Your task to perform on an android device: What's the weather today? Image 0: 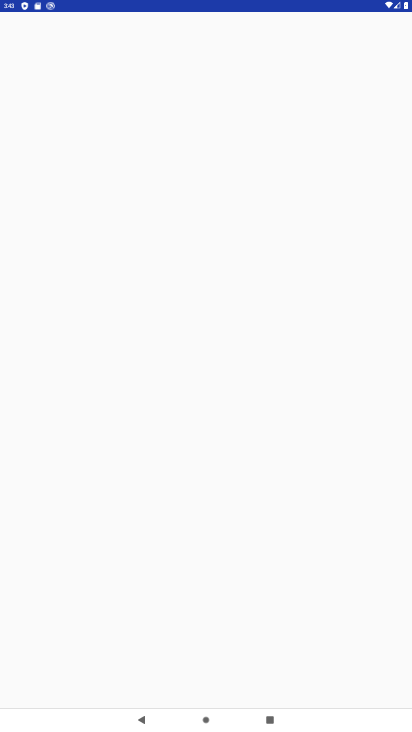
Step 0: click (142, 651)
Your task to perform on an android device: What's the weather today? Image 1: 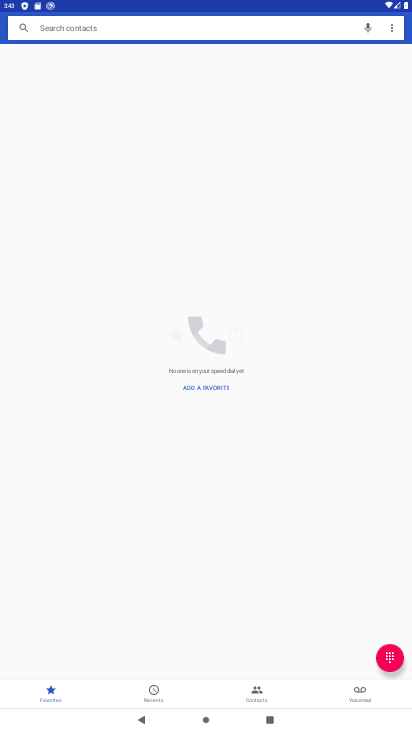
Step 1: press home button
Your task to perform on an android device: What's the weather today? Image 2: 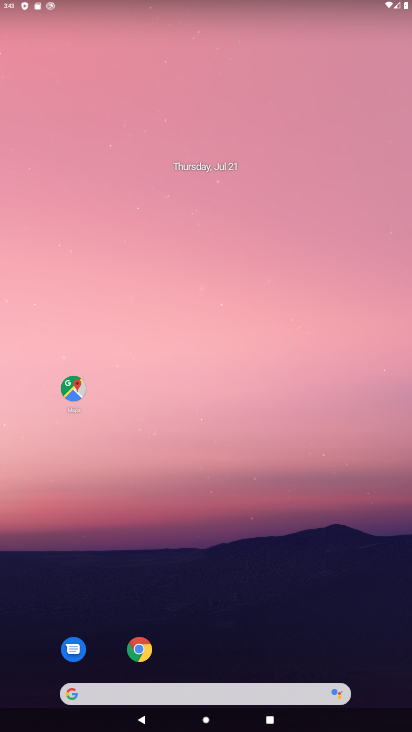
Step 2: click (136, 647)
Your task to perform on an android device: What's the weather today? Image 3: 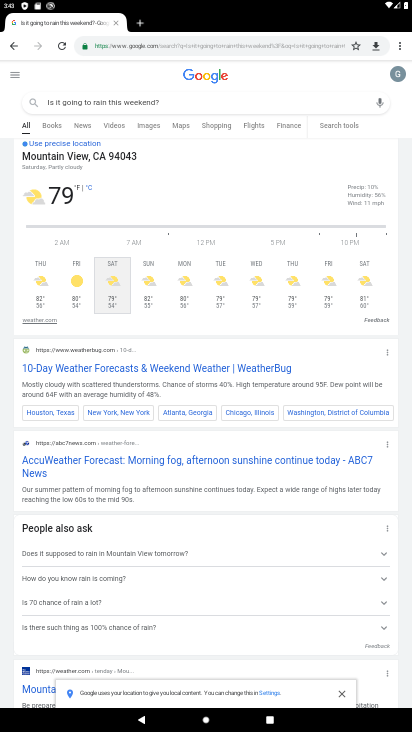
Step 3: click (204, 109)
Your task to perform on an android device: What's the weather today? Image 4: 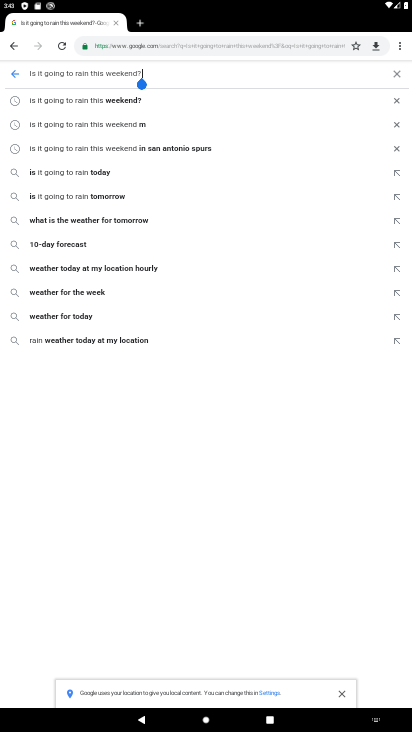
Step 4: click (399, 73)
Your task to perform on an android device: What's the weather today? Image 5: 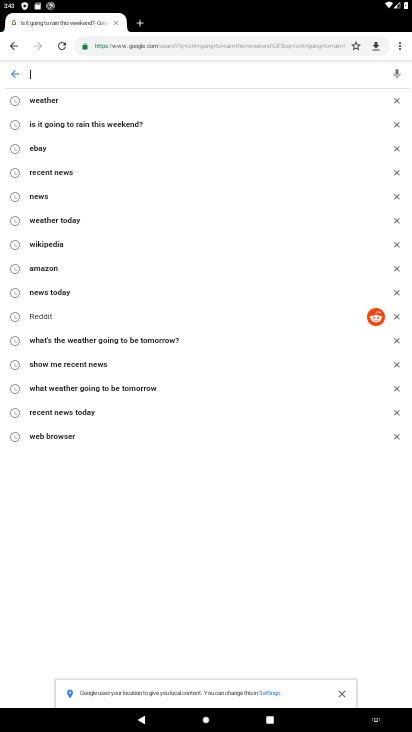
Step 5: type "What's the weather today?"
Your task to perform on an android device: What's the weather today? Image 6: 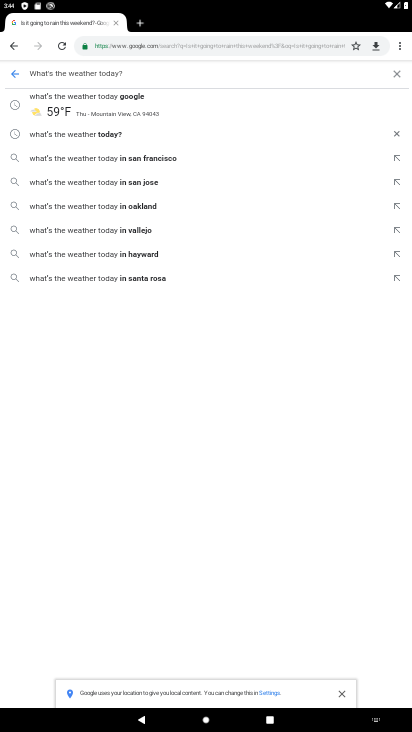
Step 6: click (56, 136)
Your task to perform on an android device: What's the weather today? Image 7: 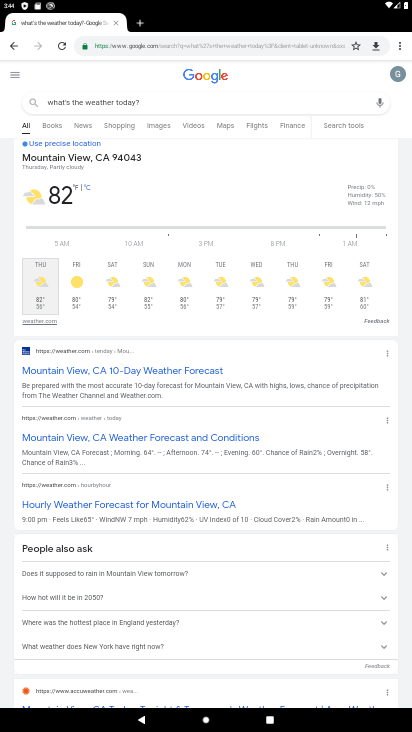
Step 7: task complete